Your task to perform on an android device: turn on the 12-hour format for clock Image 0: 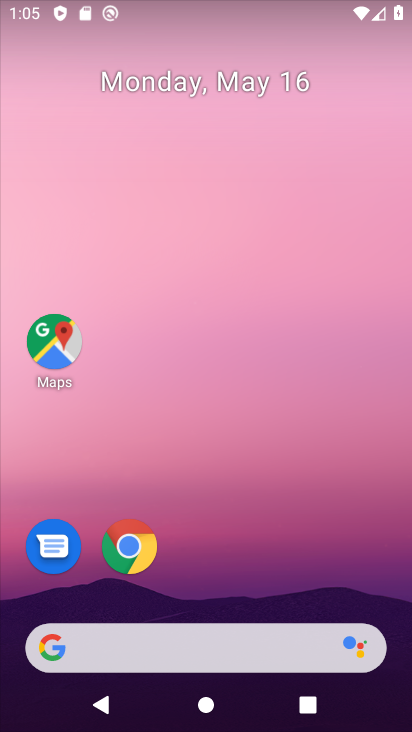
Step 0: drag from (152, 575) to (273, 198)
Your task to perform on an android device: turn on the 12-hour format for clock Image 1: 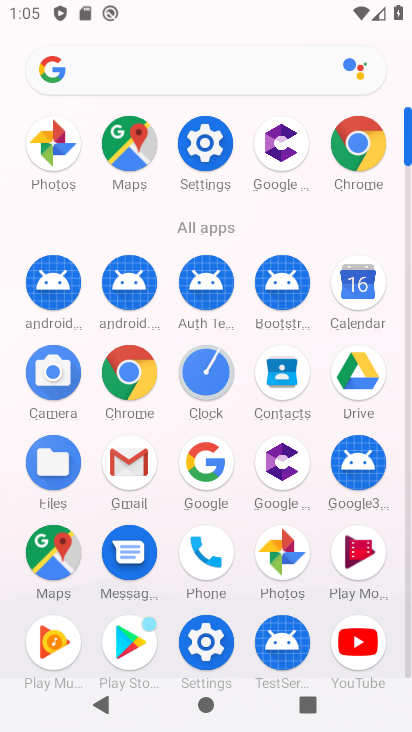
Step 1: click (202, 142)
Your task to perform on an android device: turn on the 12-hour format for clock Image 2: 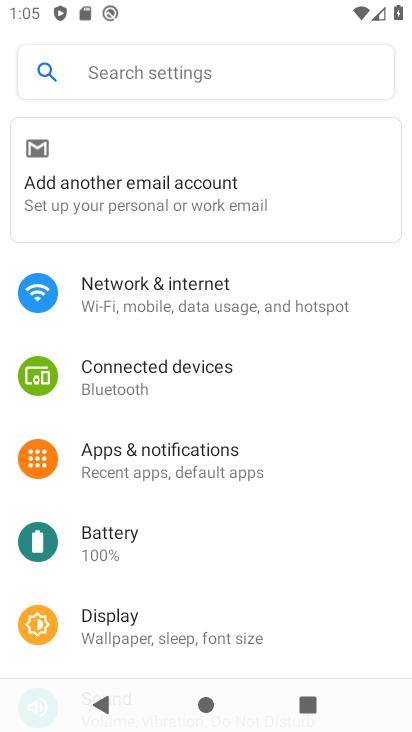
Step 2: drag from (242, 468) to (325, 168)
Your task to perform on an android device: turn on the 12-hour format for clock Image 3: 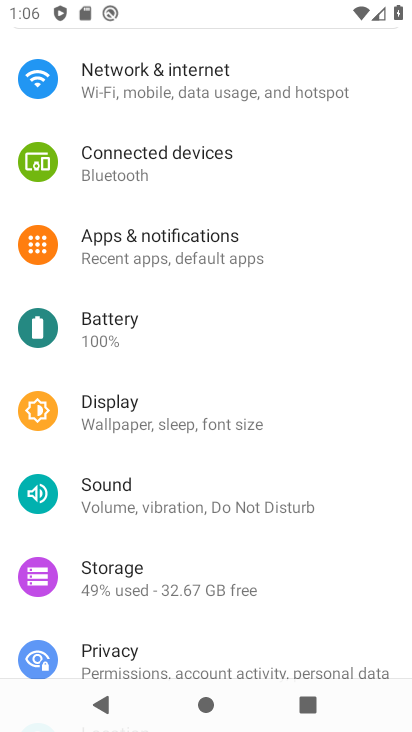
Step 3: press home button
Your task to perform on an android device: turn on the 12-hour format for clock Image 4: 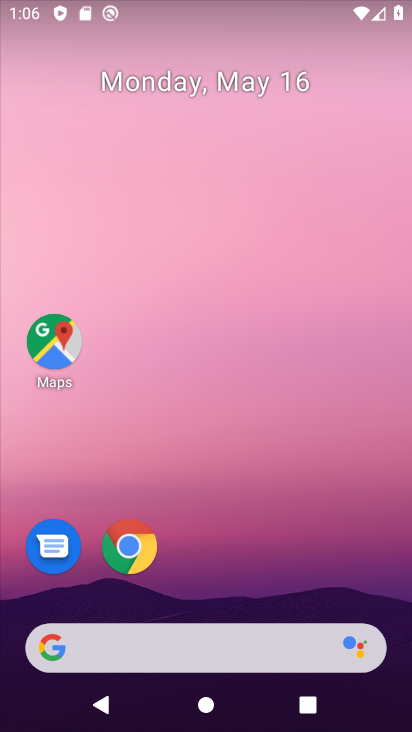
Step 4: drag from (227, 518) to (331, 130)
Your task to perform on an android device: turn on the 12-hour format for clock Image 5: 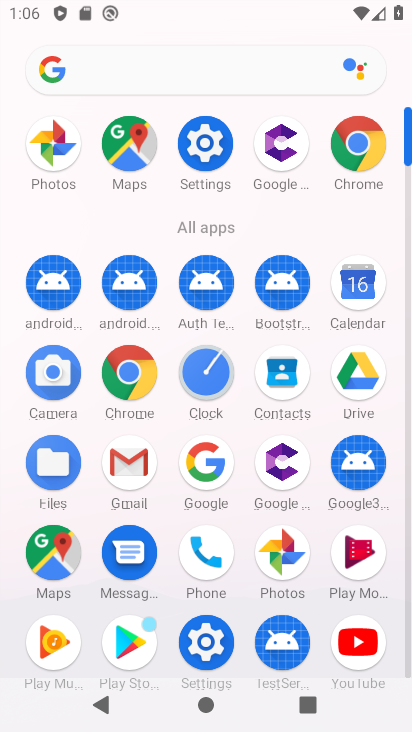
Step 5: click (212, 378)
Your task to perform on an android device: turn on the 12-hour format for clock Image 6: 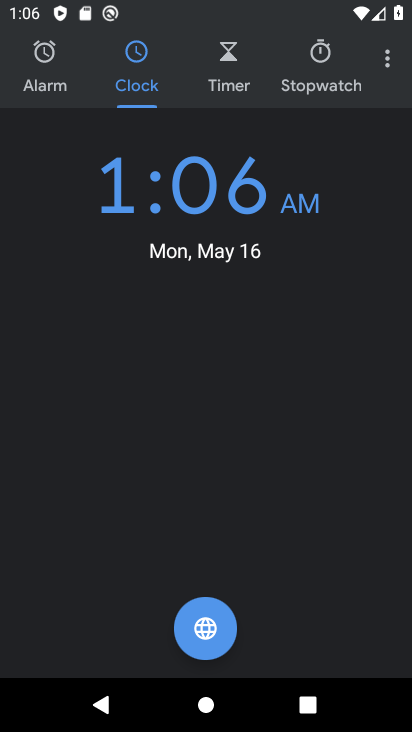
Step 6: click (390, 58)
Your task to perform on an android device: turn on the 12-hour format for clock Image 7: 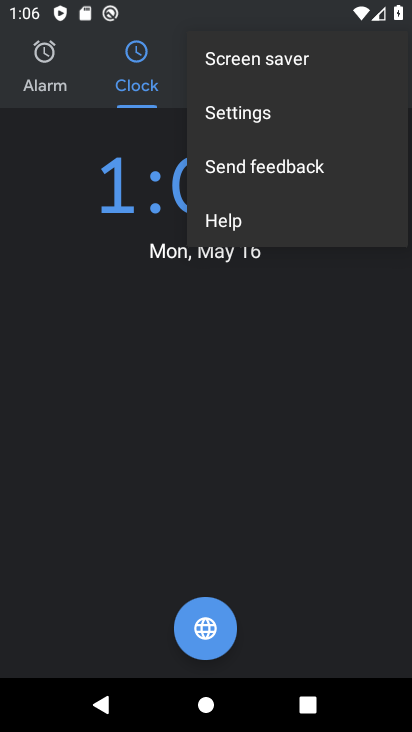
Step 7: click (272, 121)
Your task to perform on an android device: turn on the 12-hour format for clock Image 8: 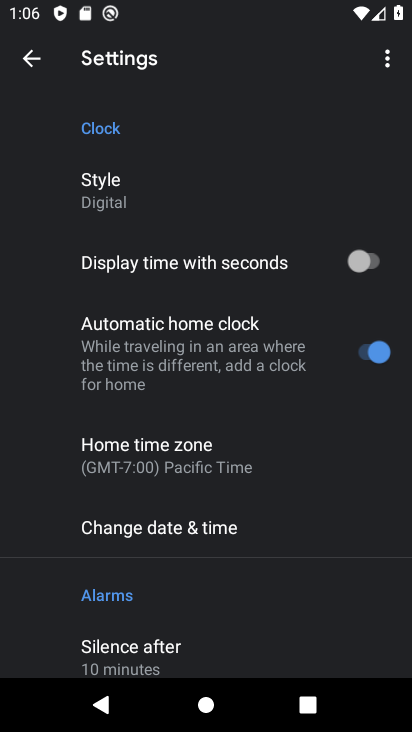
Step 8: drag from (128, 530) to (212, 164)
Your task to perform on an android device: turn on the 12-hour format for clock Image 9: 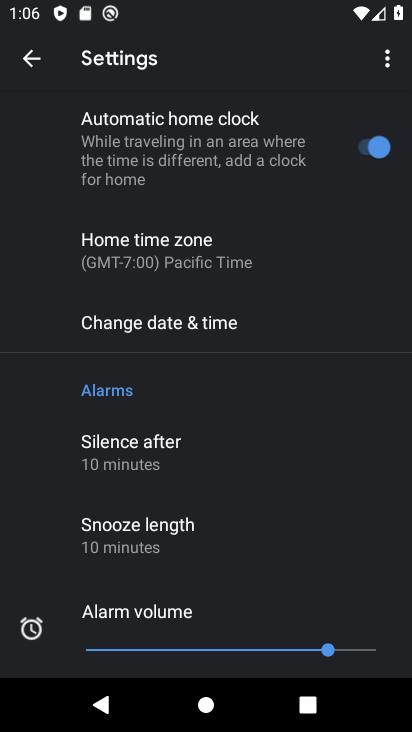
Step 9: drag from (170, 552) to (278, 174)
Your task to perform on an android device: turn on the 12-hour format for clock Image 10: 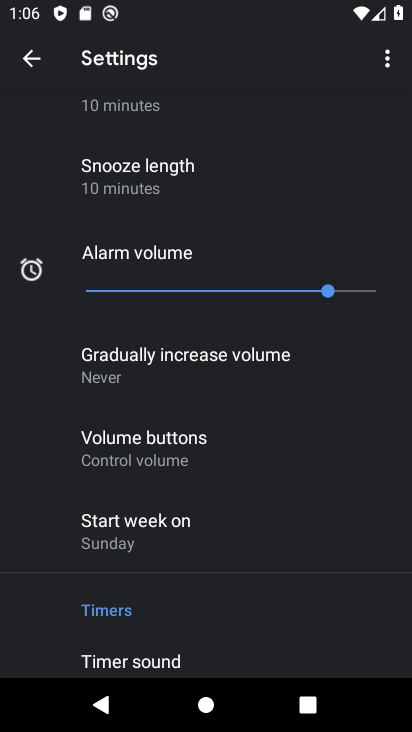
Step 10: drag from (176, 632) to (297, 191)
Your task to perform on an android device: turn on the 12-hour format for clock Image 11: 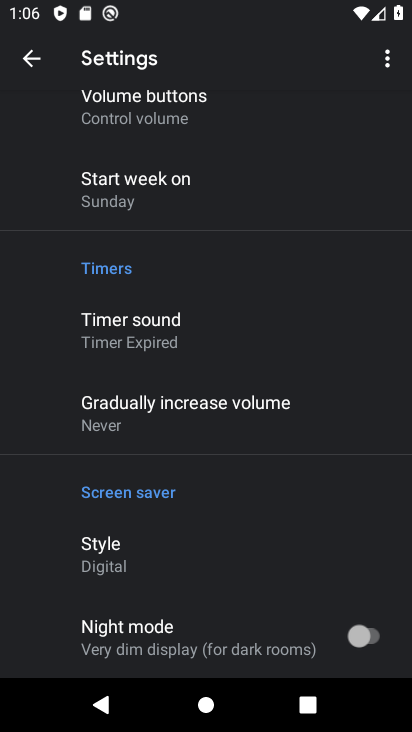
Step 11: drag from (153, 589) to (278, 351)
Your task to perform on an android device: turn on the 12-hour format for clock Image 12: 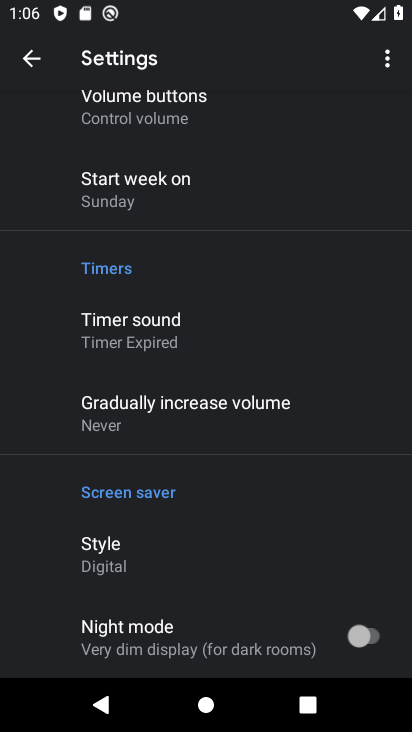
Step 12: drag from (219, 166) to (219, 434)
Your task to perform on an android device: turn on the 12-hour format for clock Image 13: 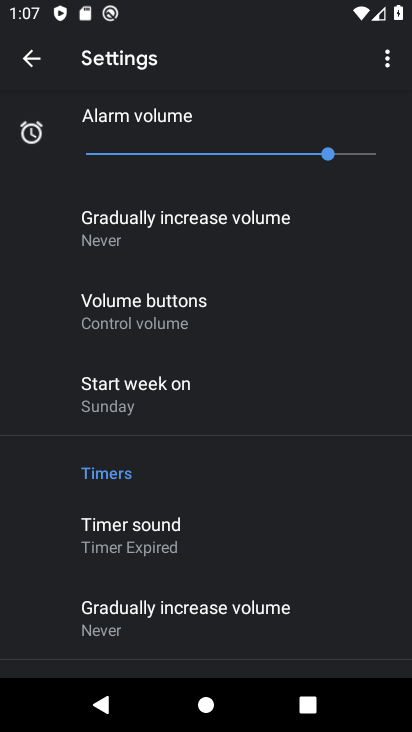
Step 13: drag from (197, 191) to (204, 580)
Your task to perform on an android device: turn on the 12-hour format for clock Image 14: 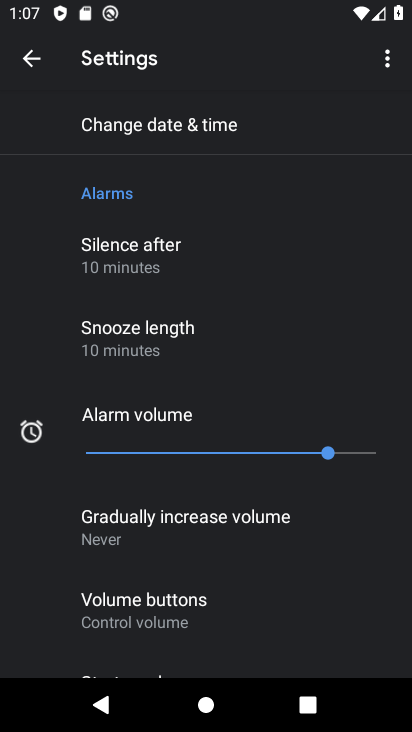
Step 14: drag from (206, 188) to (207, 473)
Your task to perform on an android device: turn on the 12-hour format for clock Image 15: 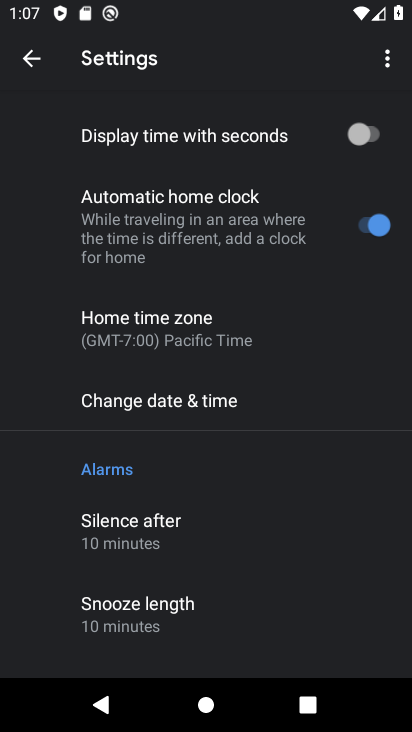
Step 15: click (160, 405)
Your task to perform on an android device: turn on the 12-hour format for clock Image 16: 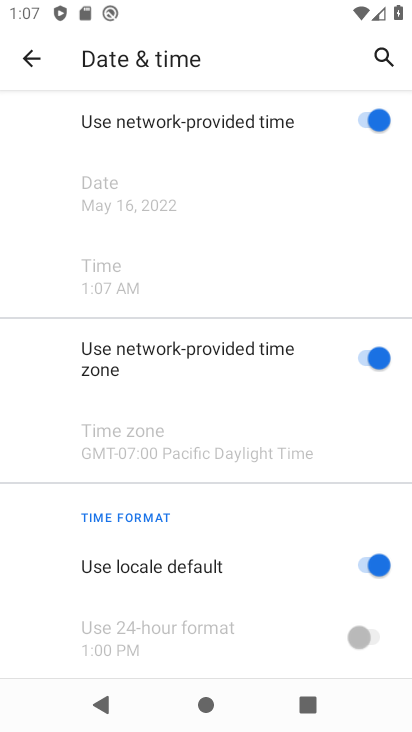
Step 16: drag from (316, 583) to (360, 290)
Your task to perform on an android device: turn on the 12-hour format for clock Image 17: 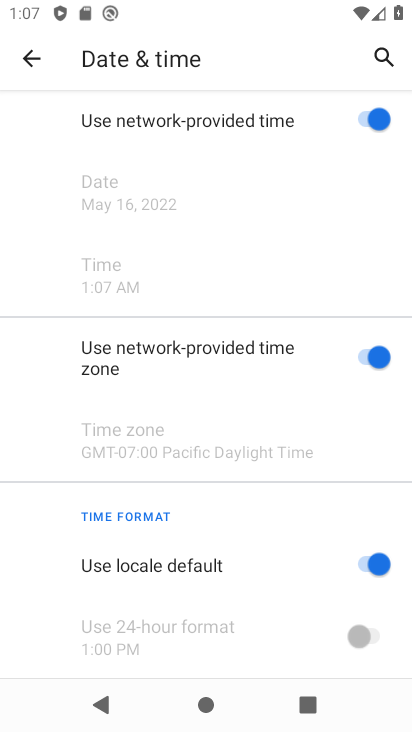
Step 17: click (367, 559)
Your task to perform on an android device: turn on the 12-hour format for clock Image 18: 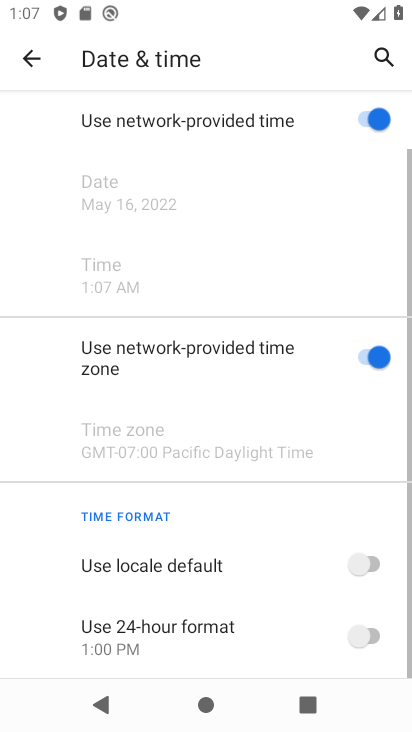
Step 18: click (371, 568)
Your task to perform on an android device: turn on the 12-hour format for clock Image 19: 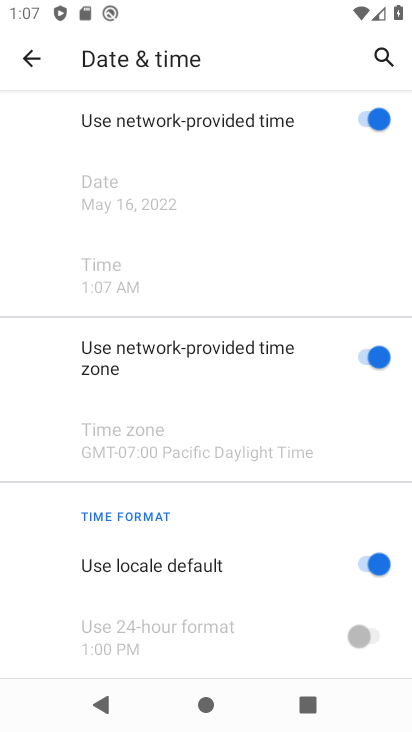
Step 19: task complete